Your task to perform on an android device: set the stopwatch Image 0: 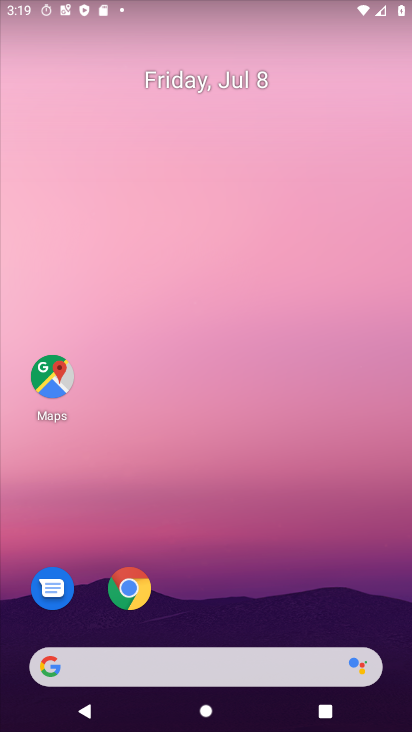
Step 0: press home button
Your task to perform on an android device: set the stopwatch Image 1: 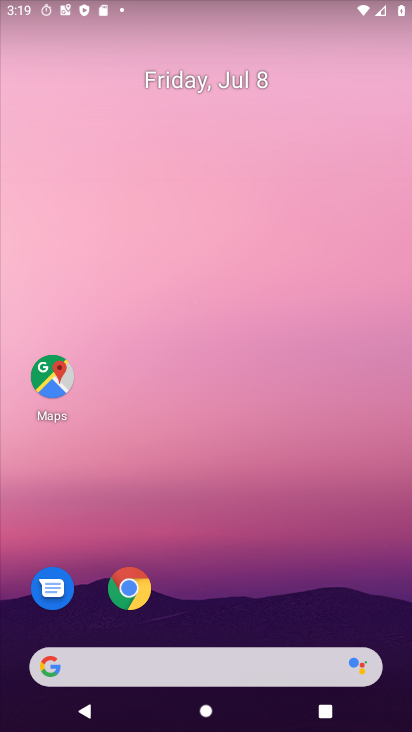
Step 1: drag from (268, 499) to (247, 29)
Your task to perform on an android device: set the stopwatch Image 2: 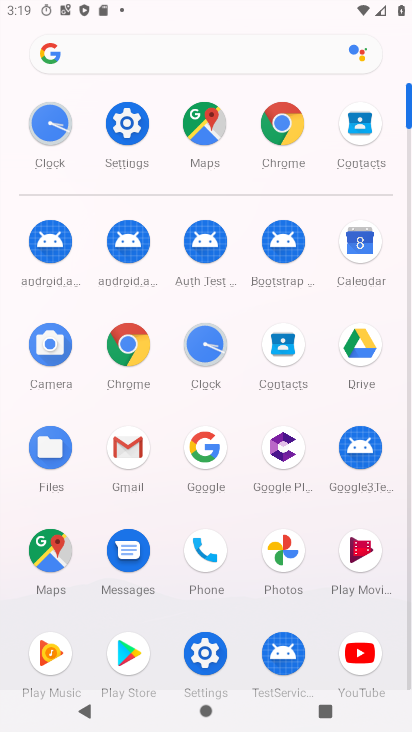
Step 2: click (214, 348)
Your task to perform on an android device: set the stopwatch Image 3: 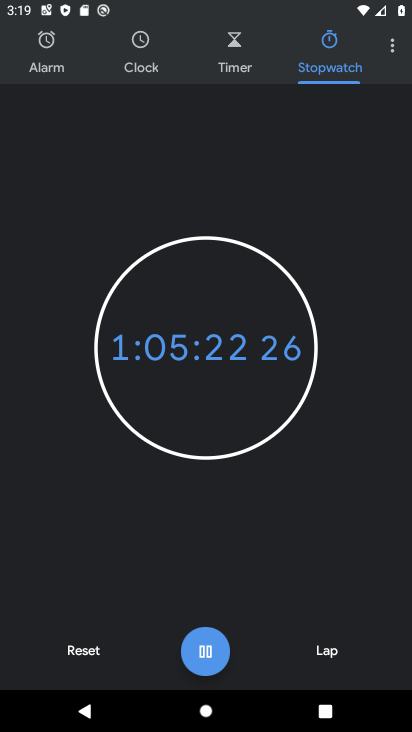
Step 3: click (206, 655)
Your task to perform on an android device: set the stopwatch Image 4: 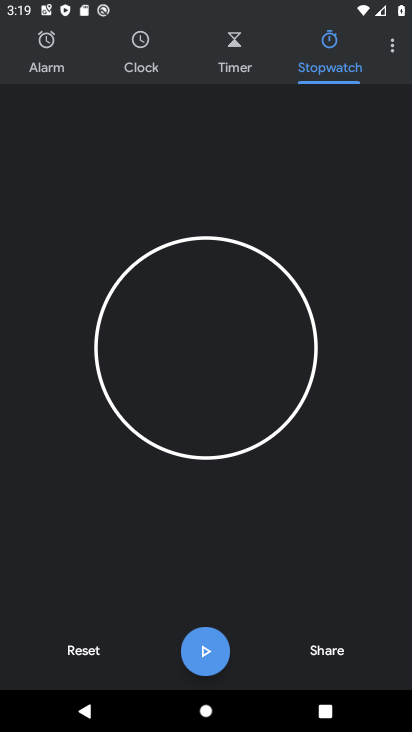
Step 4: click (206, 655)
Your task to perform on an android device: set the stopwatch Image 5: 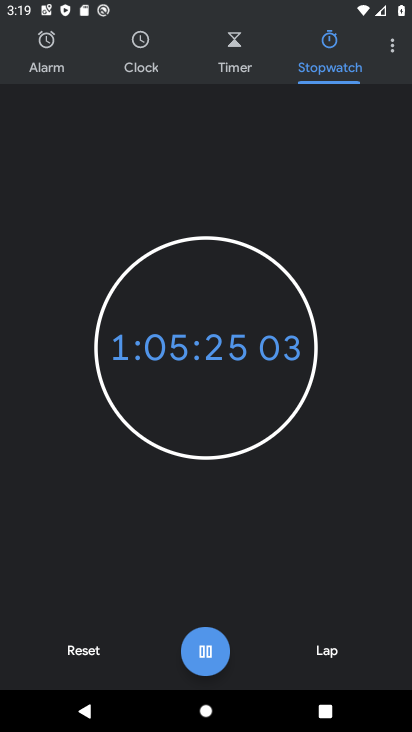
Step 5: task complete